Your task to perform on an android device: change timer sound Image 0: 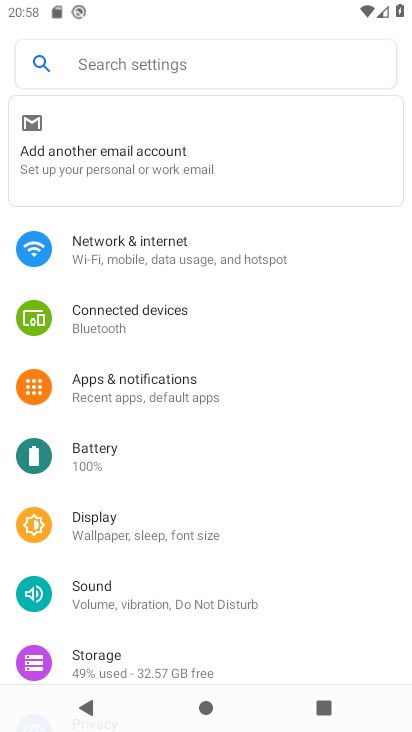
Step 0: press home button
Your task to perform on an android device: change timer sound Image 1: 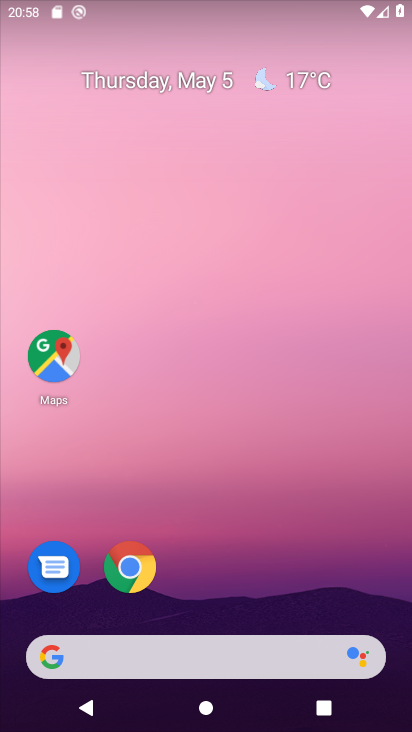
Step 1: drag from (232, 547) to (244, 83)
Your task to perform on an android device: change timer sound Image 2: 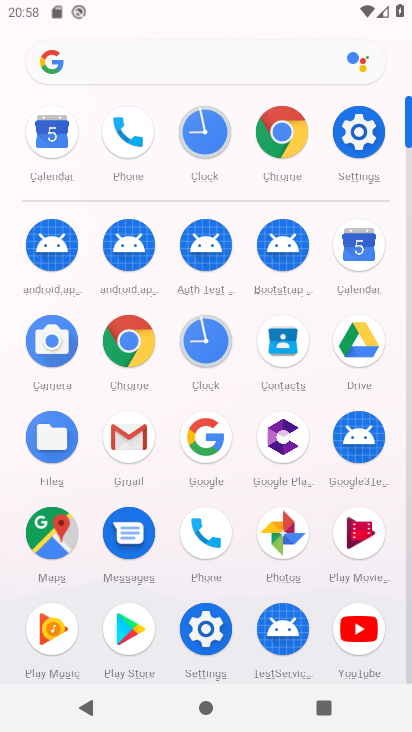
Step 2: click (211, 350)
Your task to perform on an android device: change timer sound Image 3: 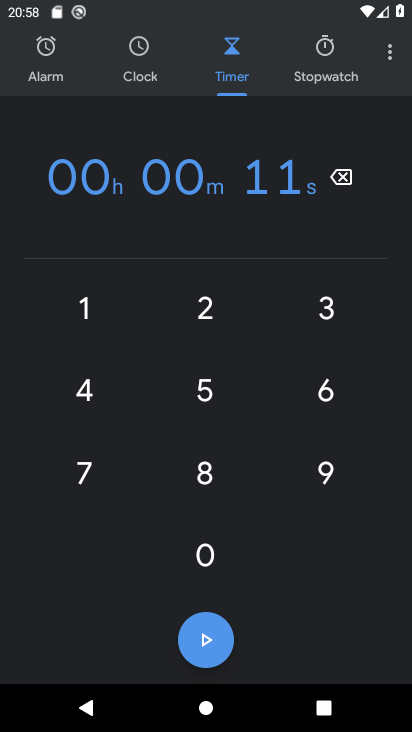
Step 3: click (387, 60)
Your task to perform on an android device: change timer sound Image 4: 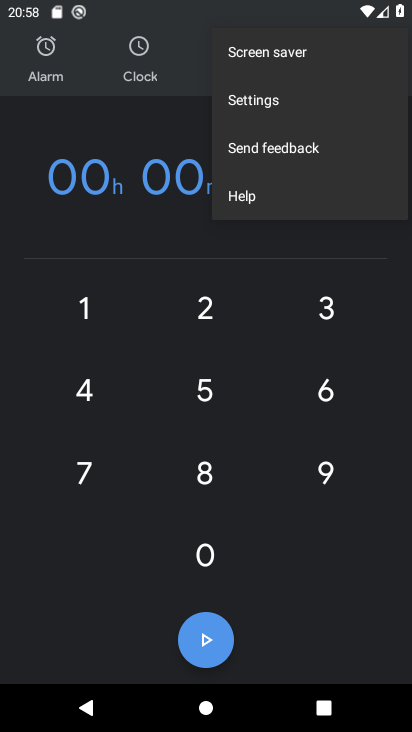
Step 4: click (329, 97)
Your task to perform on an android device: change timer sound Image 5: 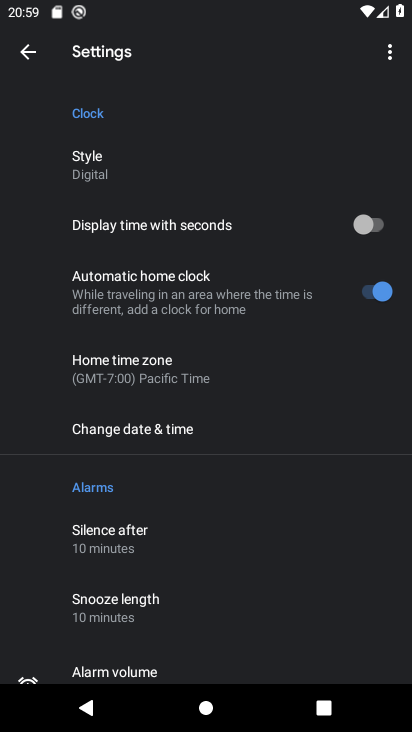
Step 5: drag from (242, 535) to (282, 107)
Your task to perform on an android device: change timer sound Image 6: 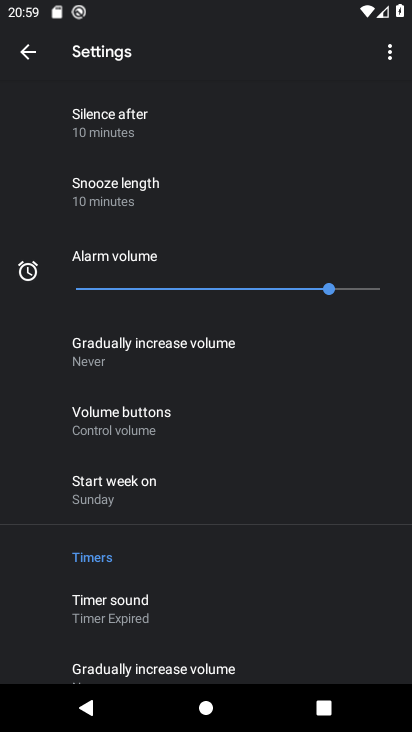
Step 6: drag from (199, 572) to (245, 291)
Your task to perform on an android device: change timer sound Image 7: 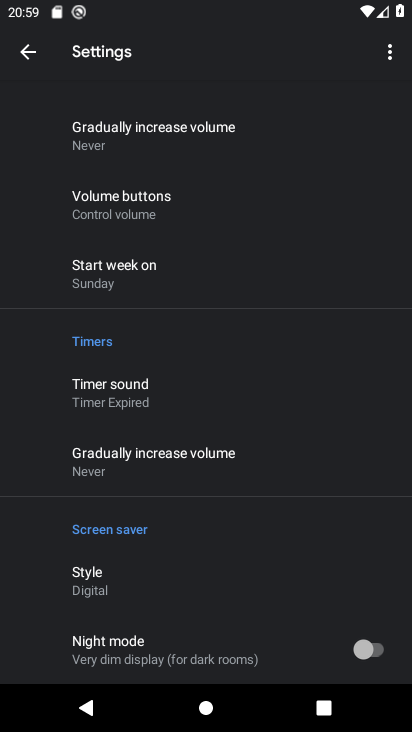
Step 7: click (157, 394)
Your task to perform on an android device: change timer sound Image 8: 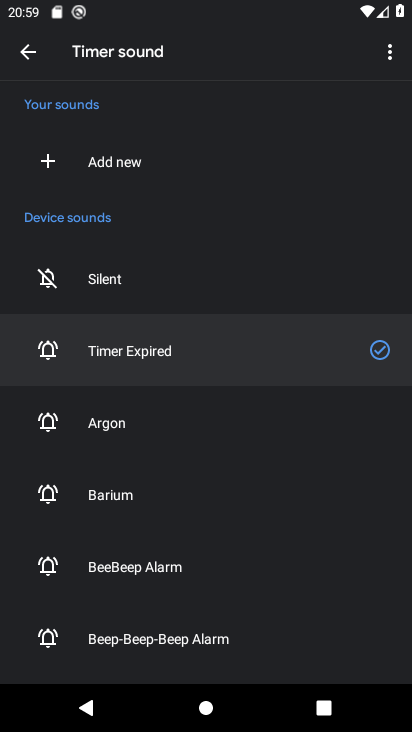
Step 8: click (163, 429)
Your task to perform on an android device: change timer sound Image 9: 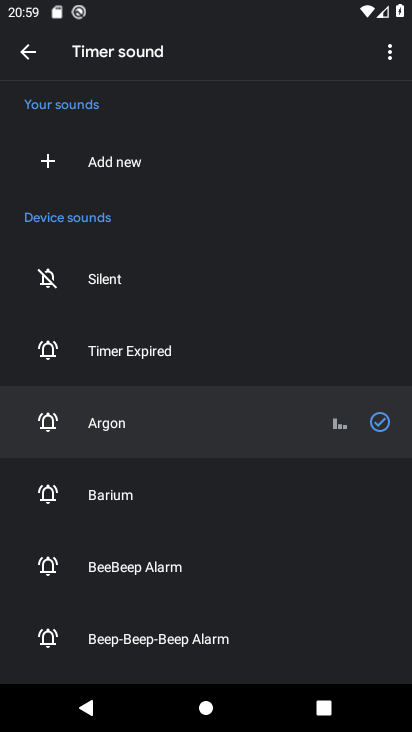
Step 9: task complete